Your task to perform on an android device: set the stopwatch Image 0: 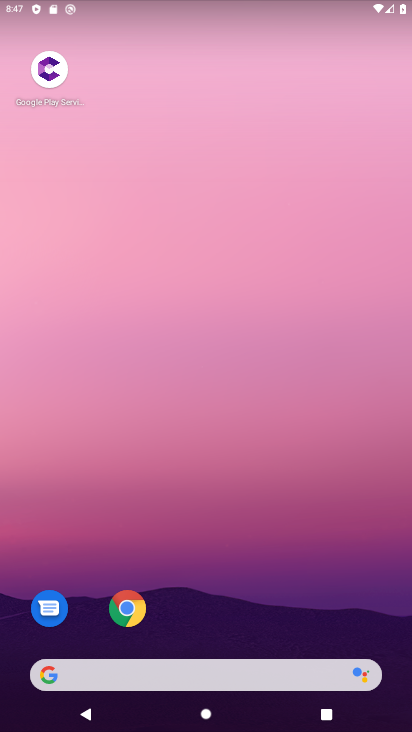
Step 0: drag from (375, 590) to (168, 2)
Your task to perform on an android device: set the stopwatch Image 1: 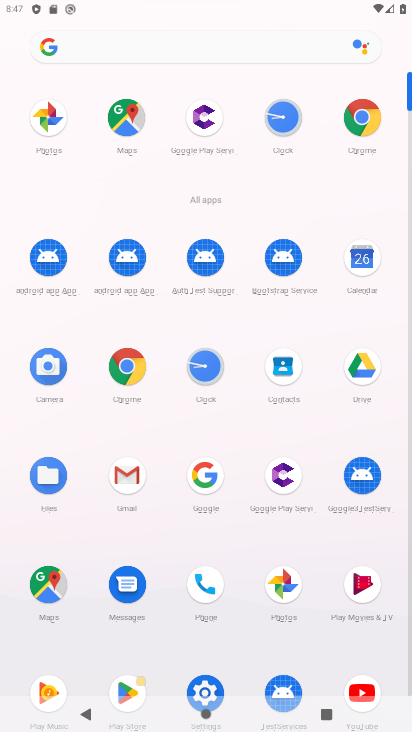
Step 1: click (202, 373)
Your task to perform on an android device: set the stopwatch Image 2: 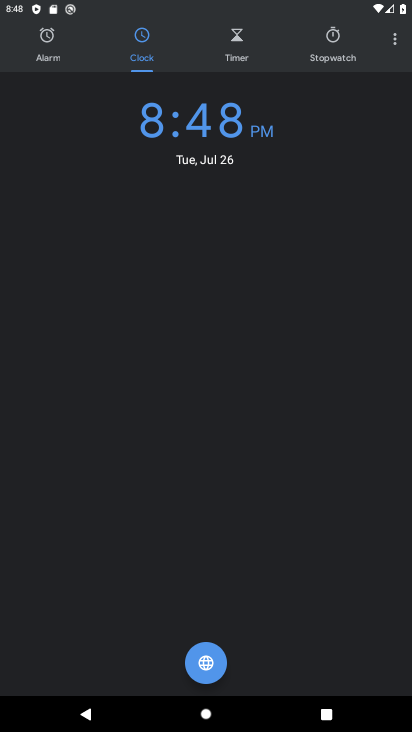
Step 2: click (339, 50)
Your task to perform on an android device: set the stopwatch Image 3: 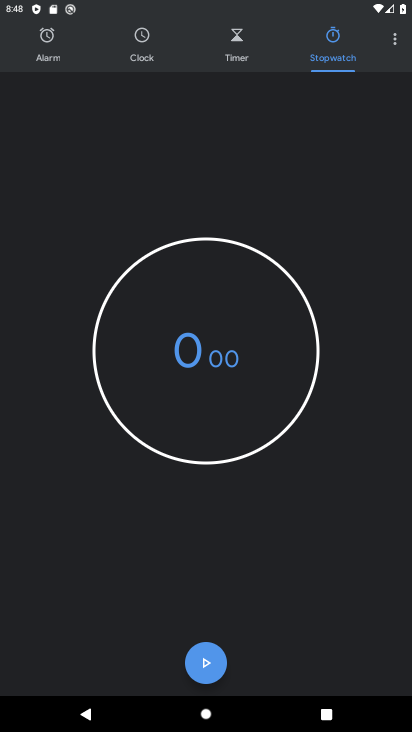
Step 3: click (211, 658)
Your task to perform on an android device: set the stopwatch Image 4: 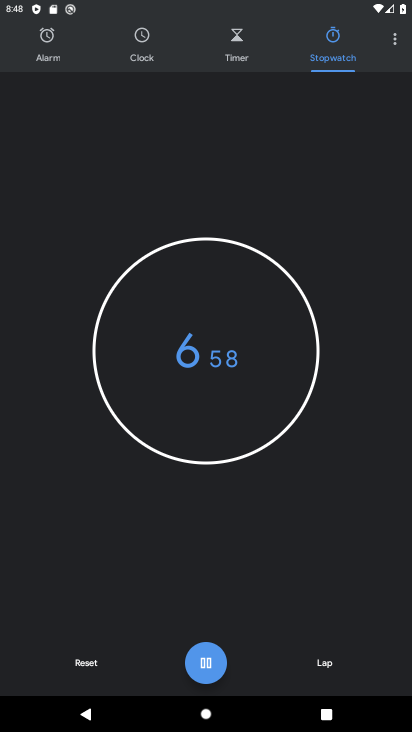
Step 4: task complete